Your task to perform on an android device: What is the news today? Image 0: 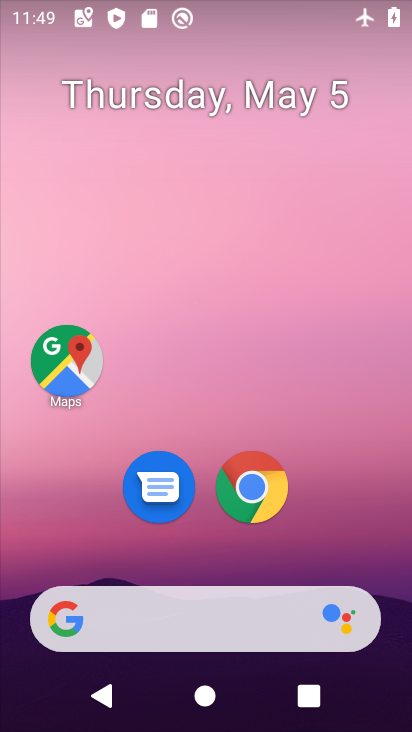
Step 0: click (270, 499)
Your task to perform on an android device: What is the news today? Image 1: 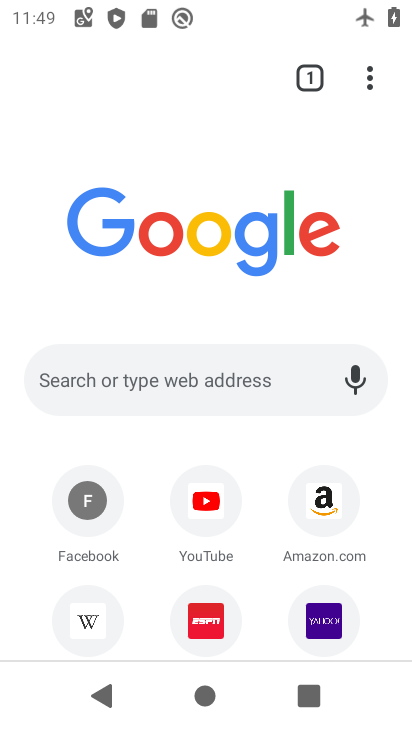
Step 1: drag from (270, 558) to (269, 49)
Your task to perform on an android device: What is the news today? Image 2: 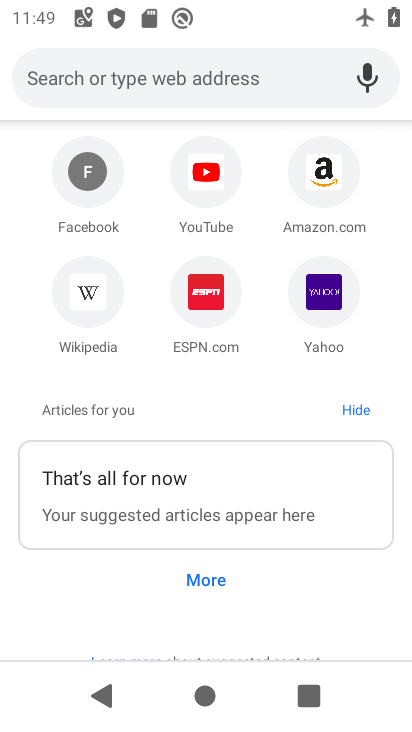
Step 2: click (202, 576)
Your task to perform on an android device: What is the news today? Image 3: 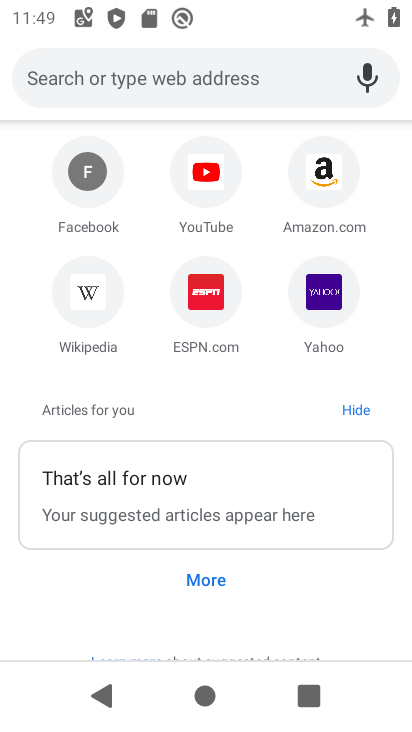
Step 3: click (202, 576)
Your task to perform on an android device: What is the news today? Image 4: 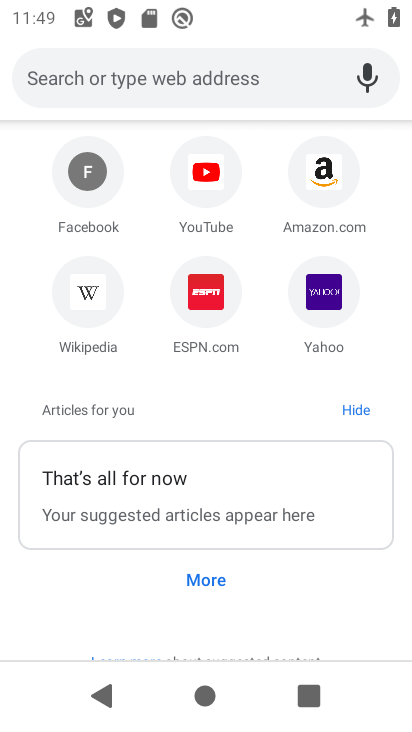
Step 4: task complete